Your task to perform on an android device: Look up the best gaming chair on Best Buy. Image 0: 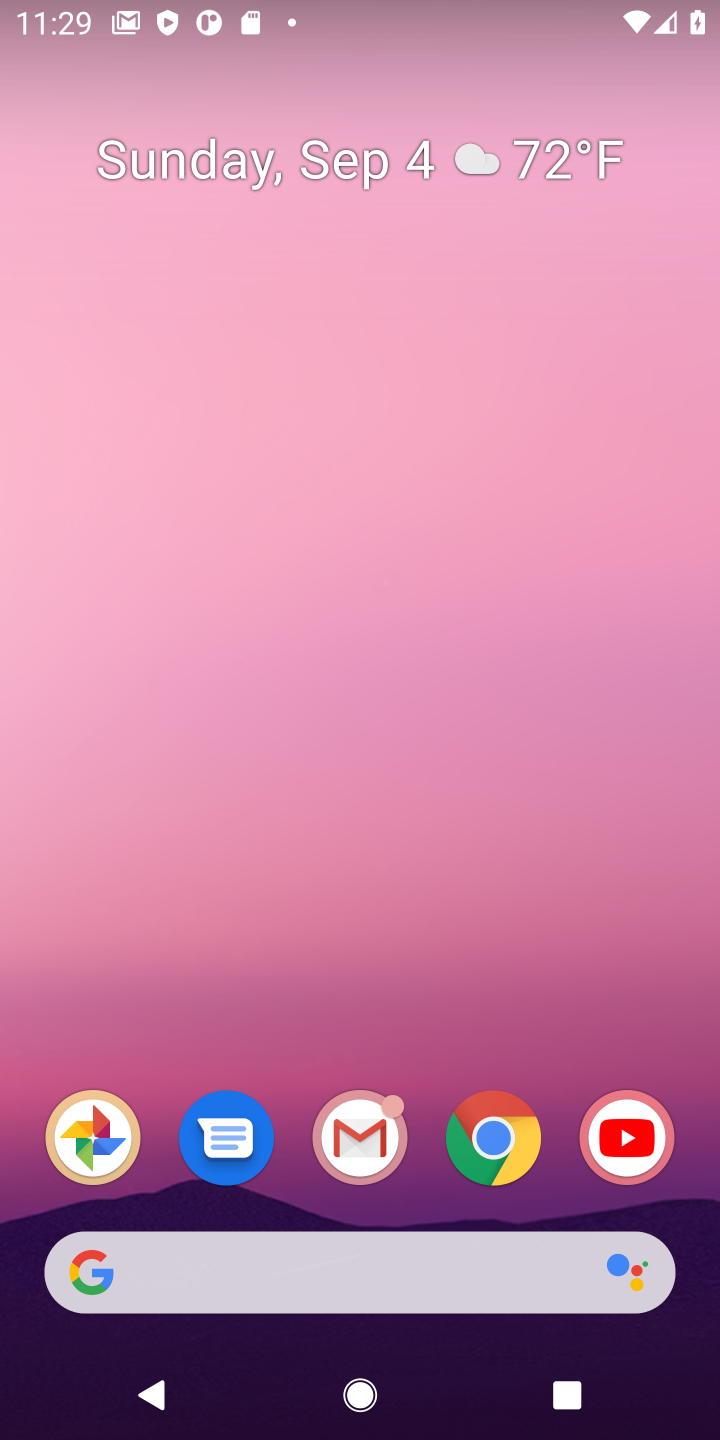
Step 0: click (464, 1170)
Your task to perform on an android device: Look up the best gaming chair on Best Buy. Image 1: 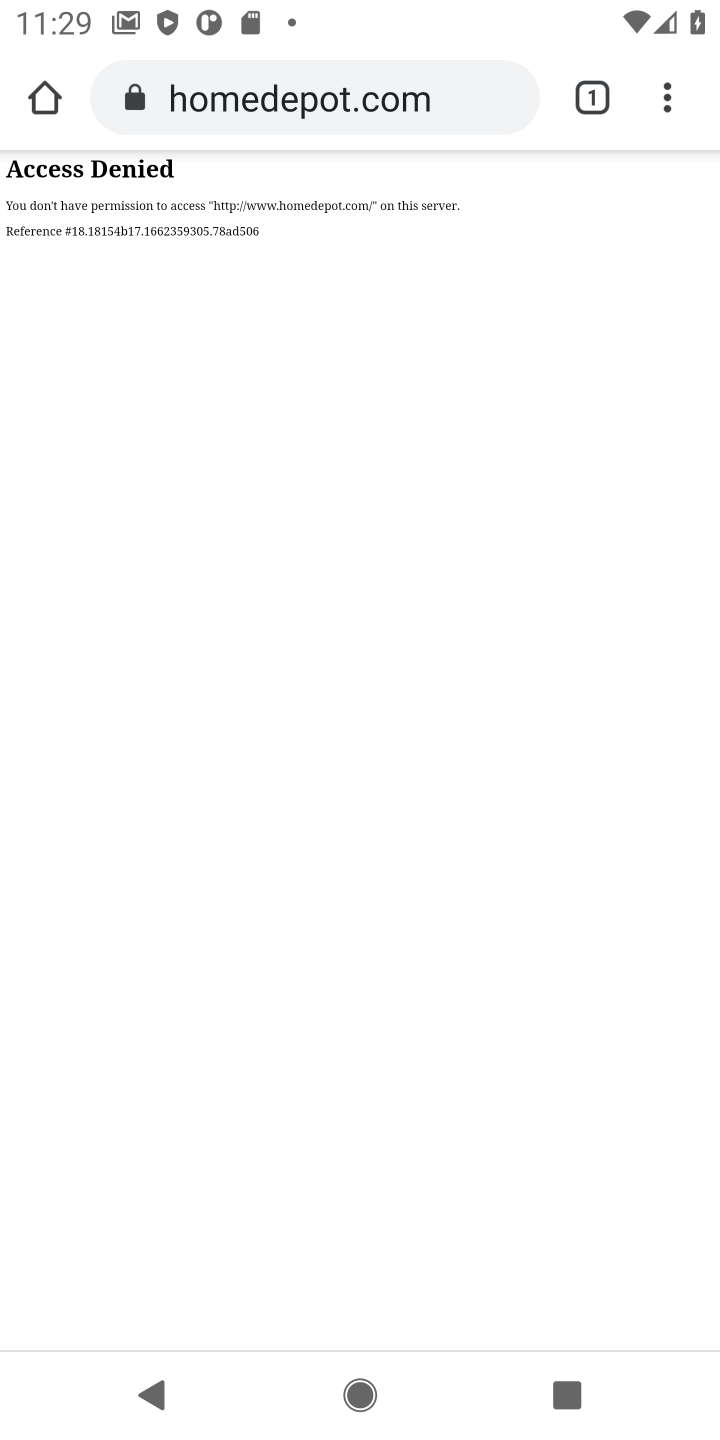
Step 1: click (393, 99)
Your task to perform on an android device: Look up the best gaming chair on Best Buy. Image 2: 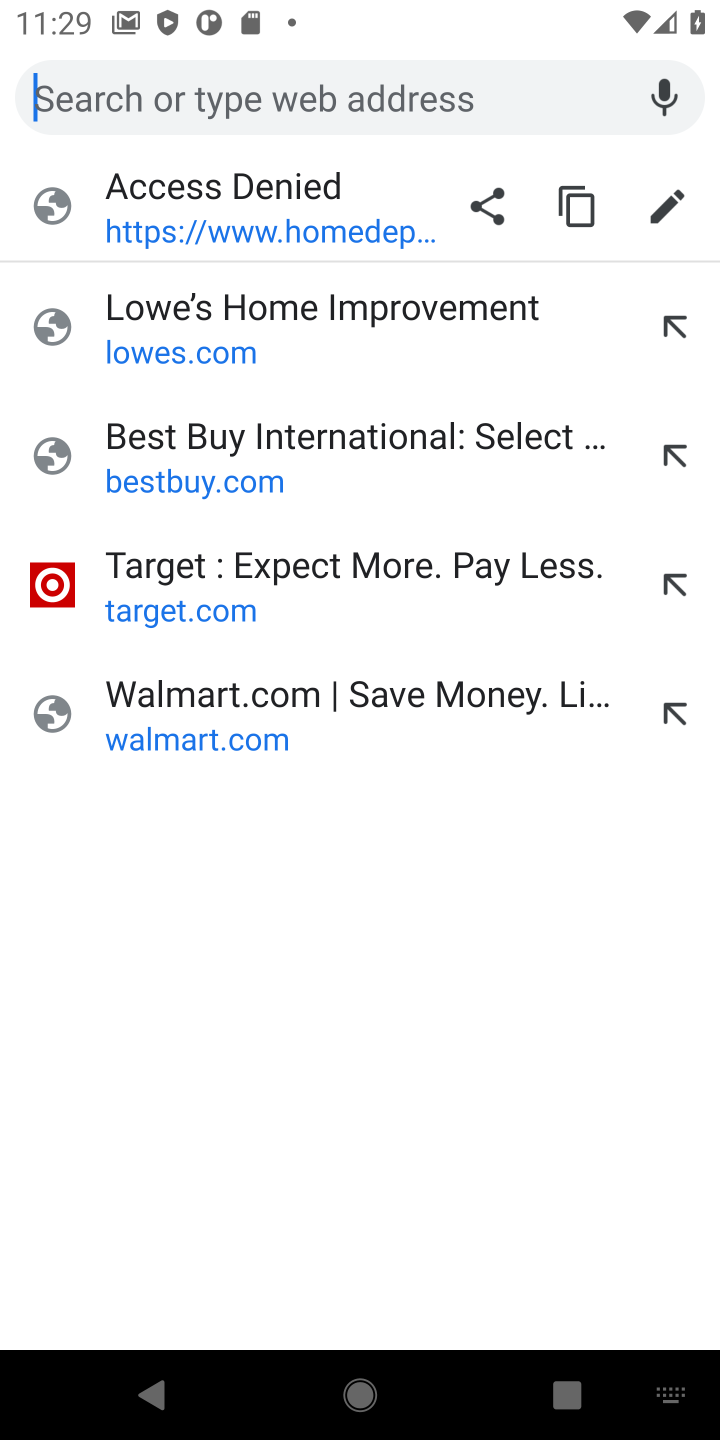
Step 2: type "best buy"
Your task to perform on an android device: Look up the best gaming chair on Best Buy. Image 3: 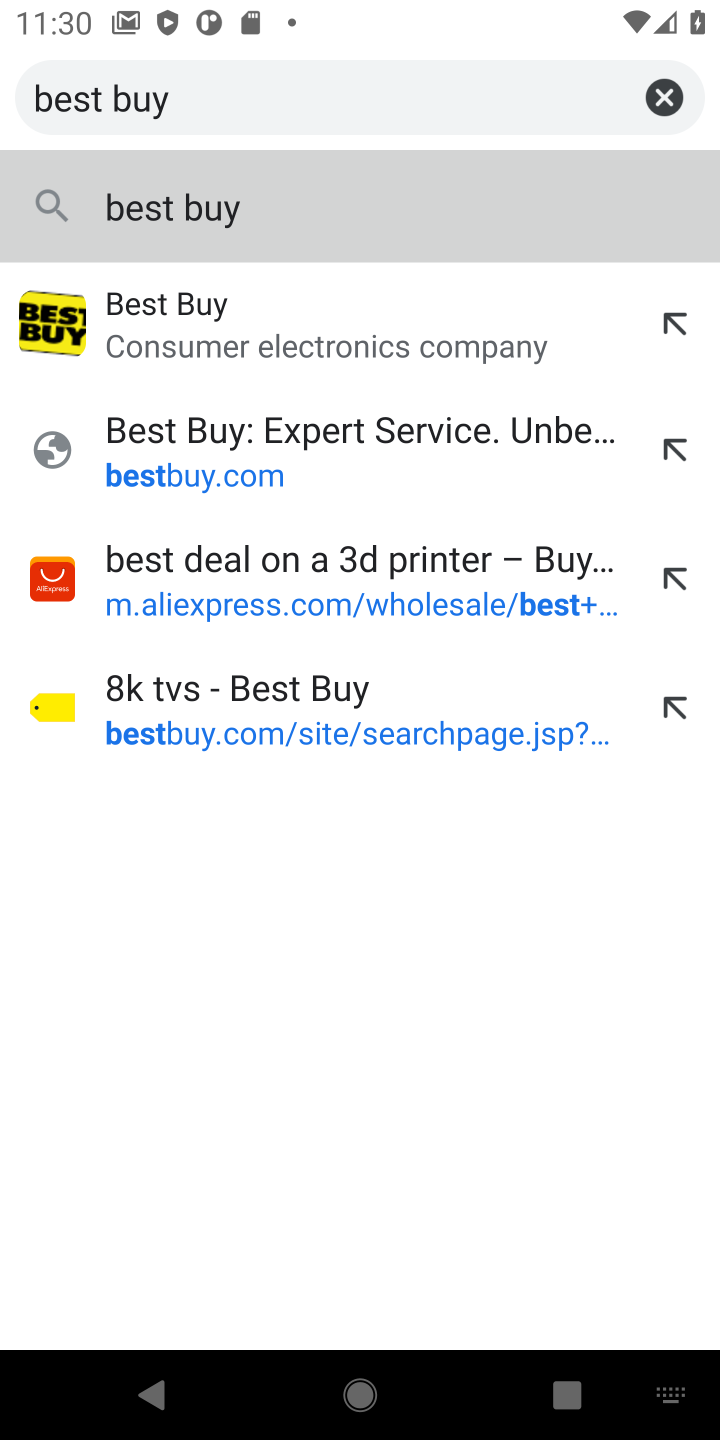
Step 3: click (370, 458)
Your task to perform on an android device: Look up the best gaming chair on Best Buy. Image 4: 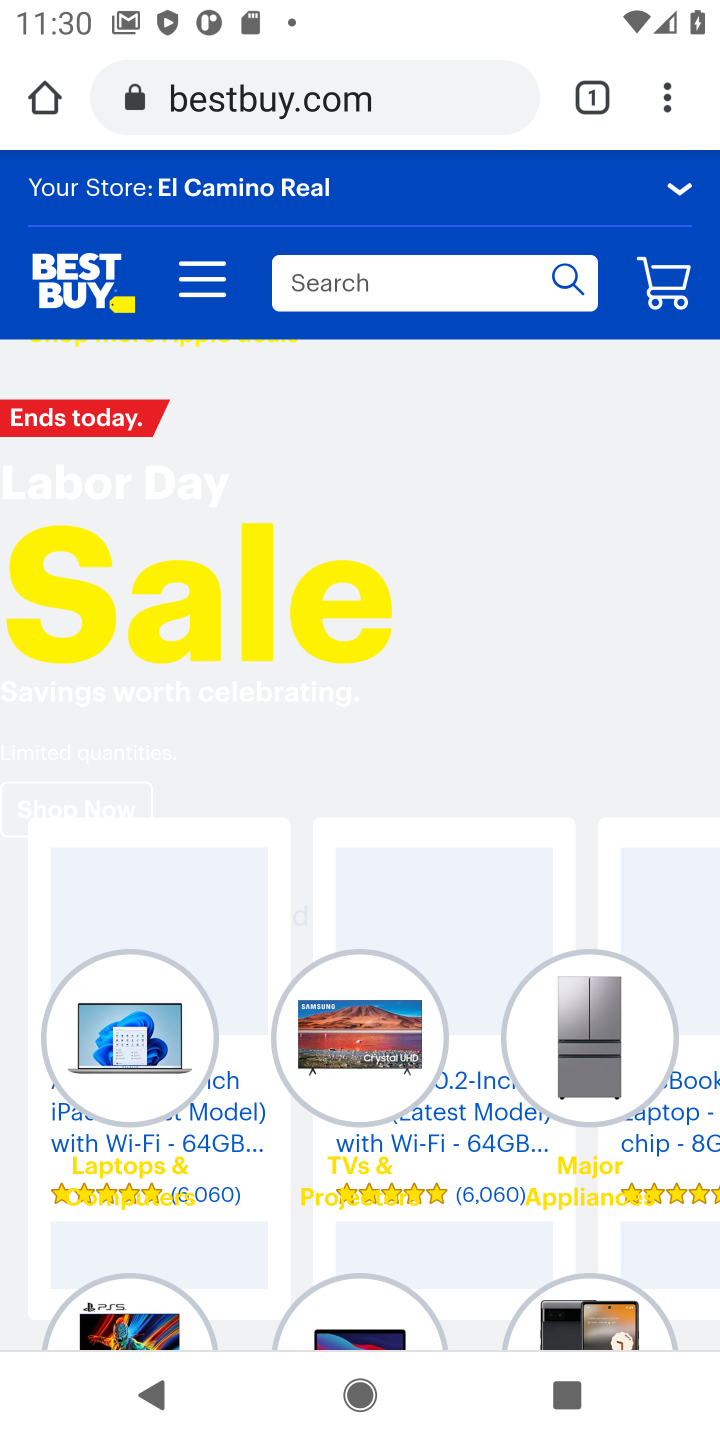
Step 4: click (394, 304)
Your task to perform on an android device: Look up the best gaming chair on Best Buy. Image 5: 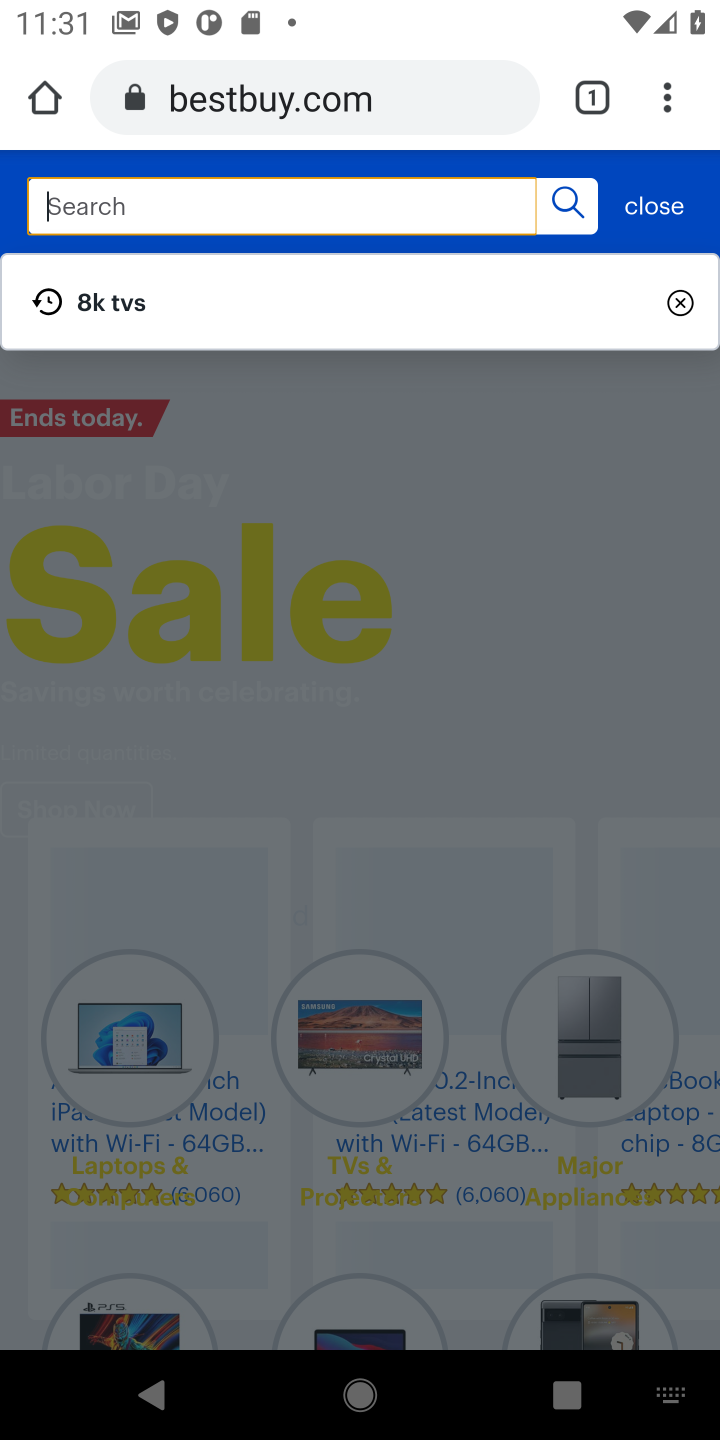
Step 5: type "best gaming chair"
Your task to perform on an android device: Look up the best gaming chair on Best Buy. Image 6: 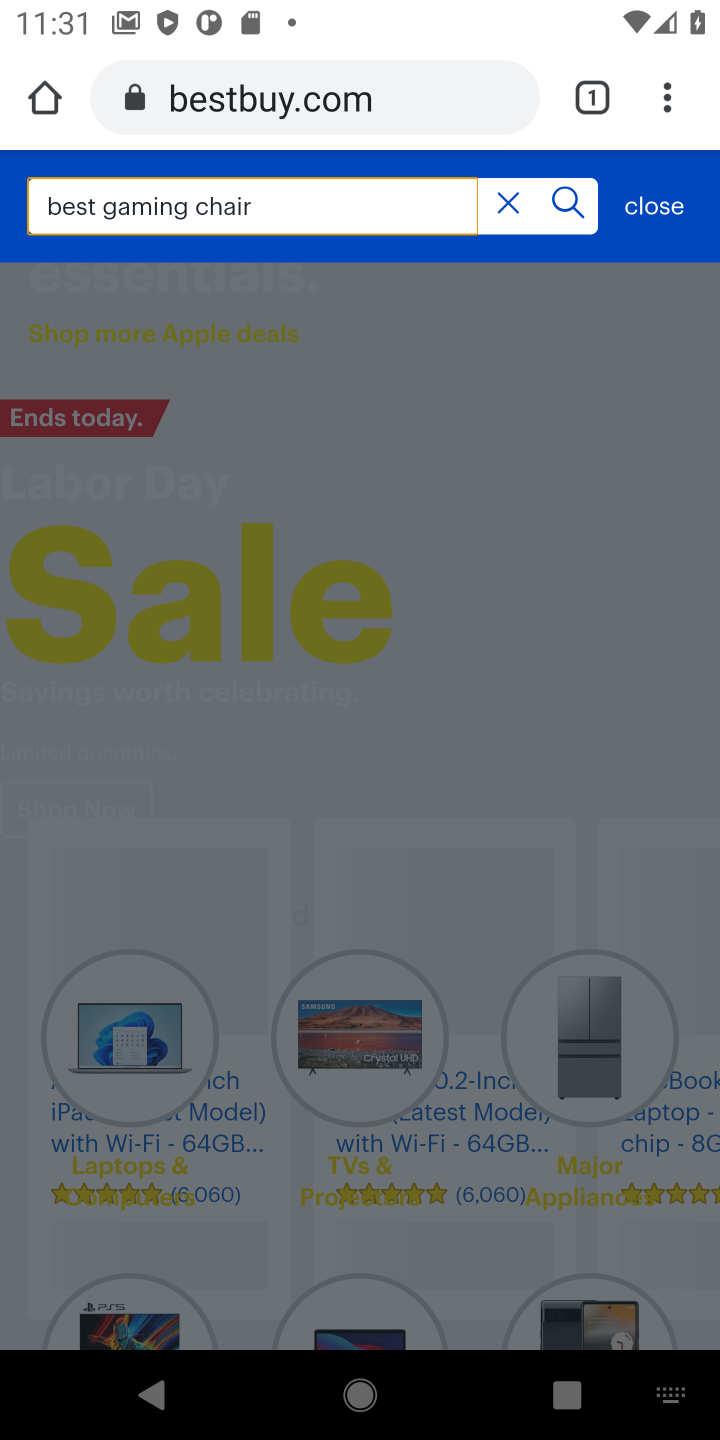
Step 6: press enter
Your task to perform on an android device: Look up the best gaming chair on Best Buy. Image 7: 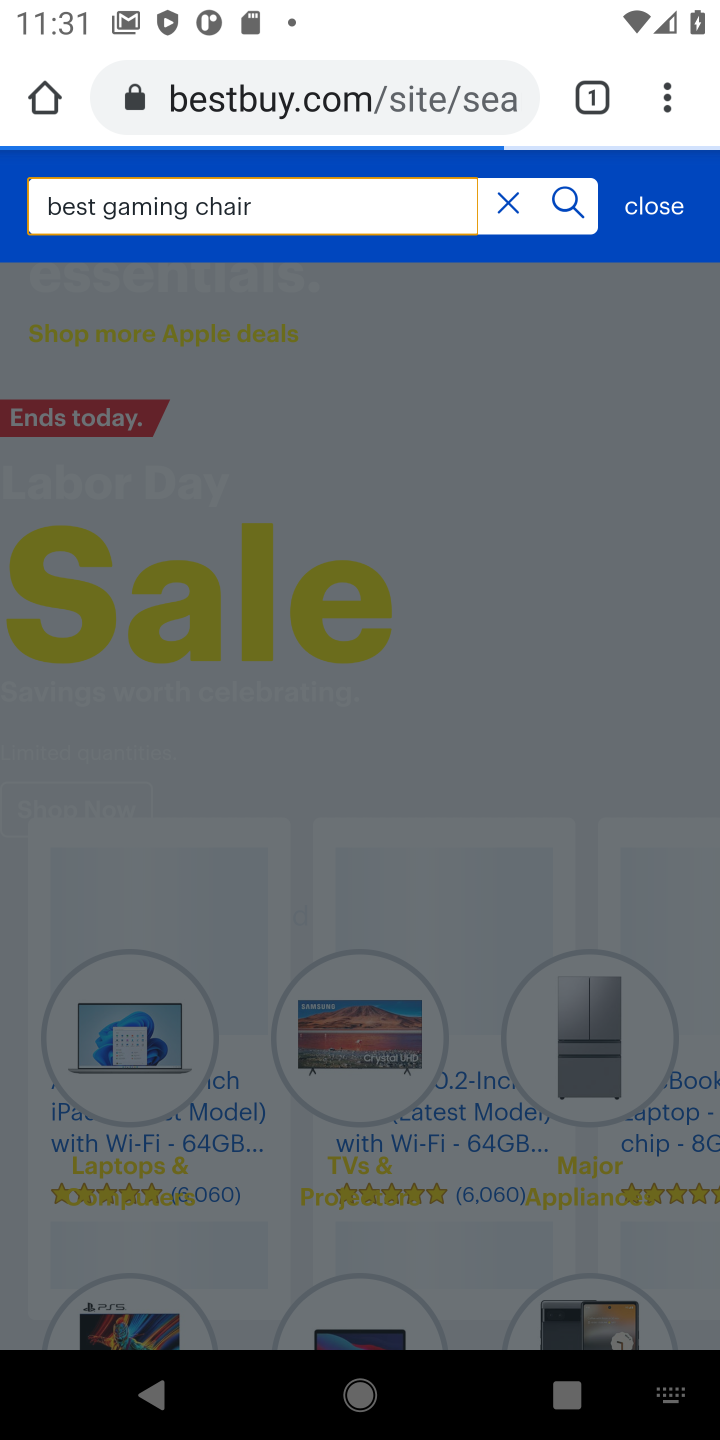
Step 7: press enter
Your task to perform on an android device: Look up the best gaming chair on Best Buy. Image 8: 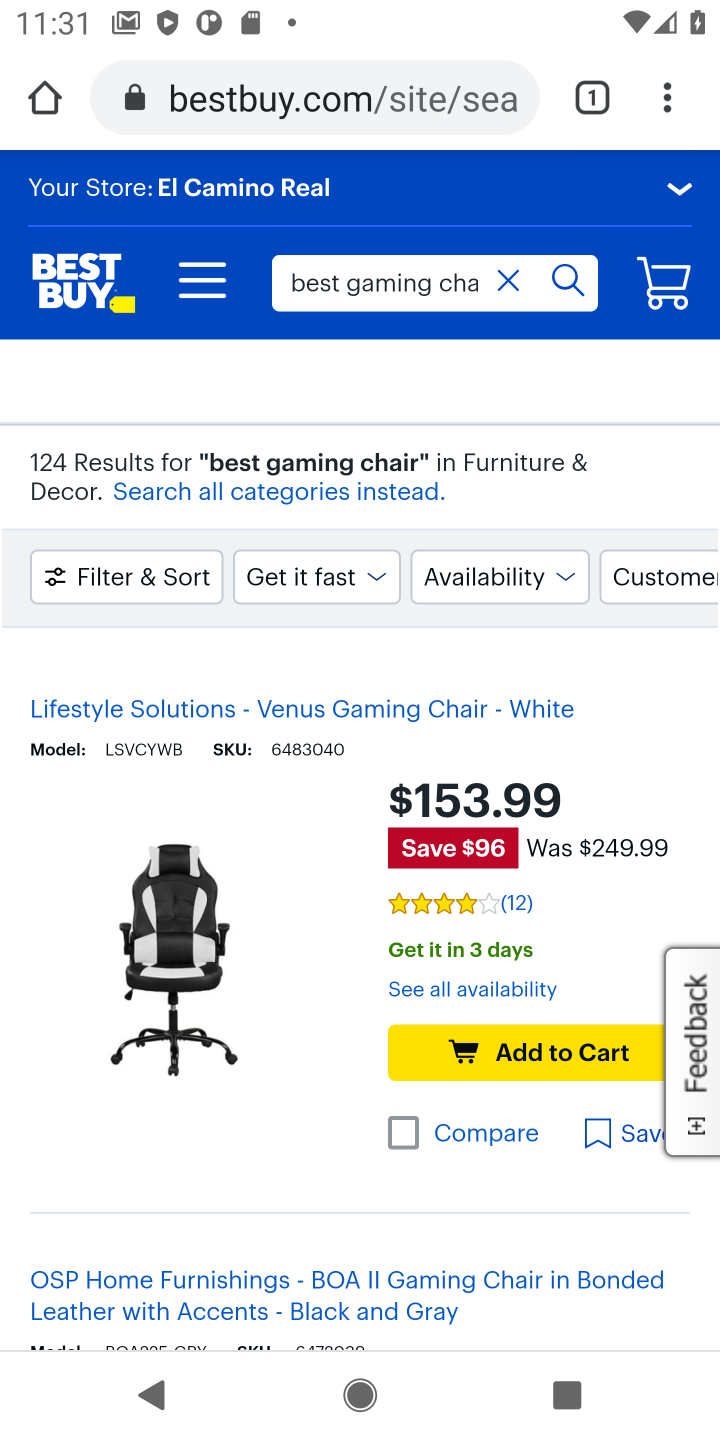
Step 8: task complete